Your task to perform on an android device: Open Youtube and go to the subscriptions tab Image 0: 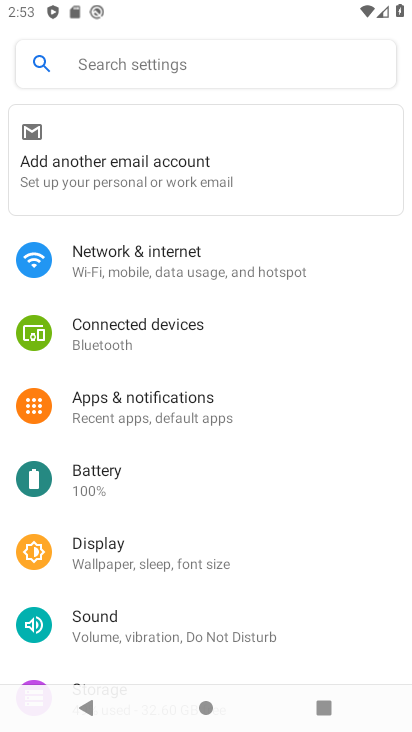
Step 0: press home button
Your task to perform on an android device: Open Youtube and go to the subscriptions tab Image 1: 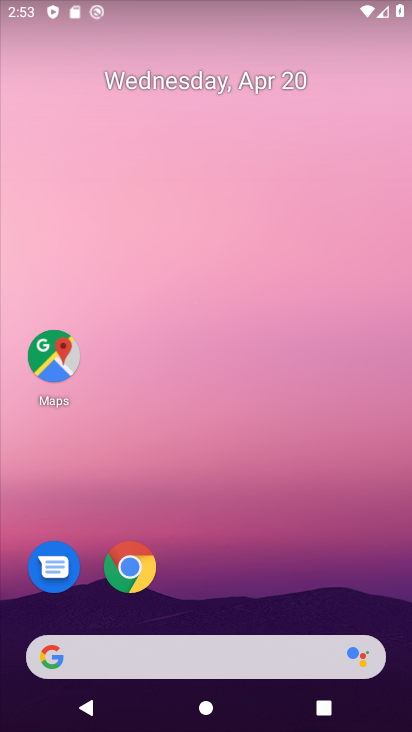
Step 1: drag from (380, 627) to (312, 358)
Your task to perform on an android device: Open Youtube and go to the subscriptions tab Image 2: 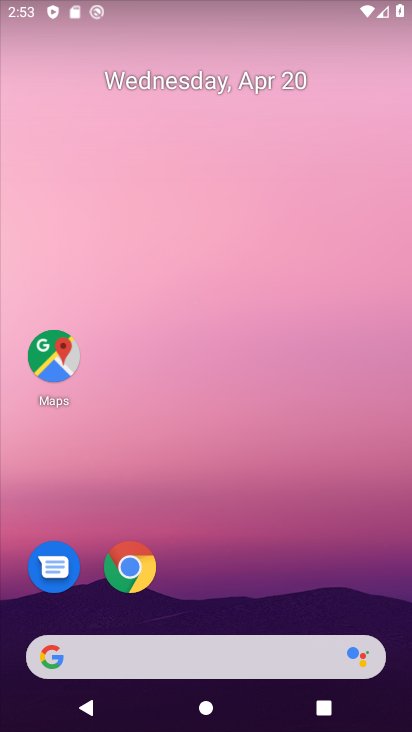
Step 2: drag from (271, 607) to (248, 111)
Your task to perform on an android device: Open Youtube and go to the subscriptions tab Image 3: 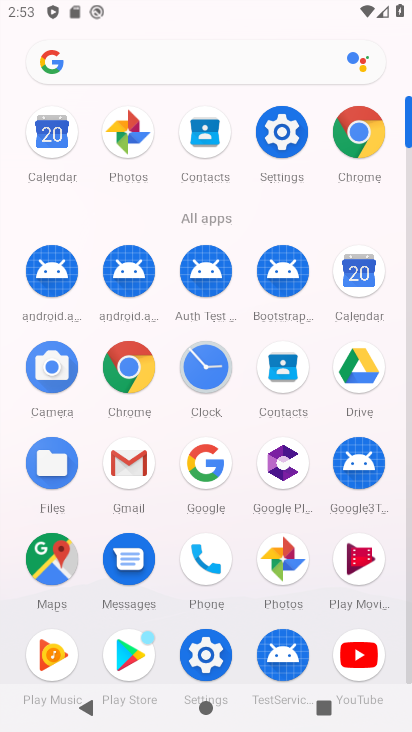
Step 3: click (363, 636)
Your task to perform on an android device: Open Youtube and go to the subscriptions tab Image 4: 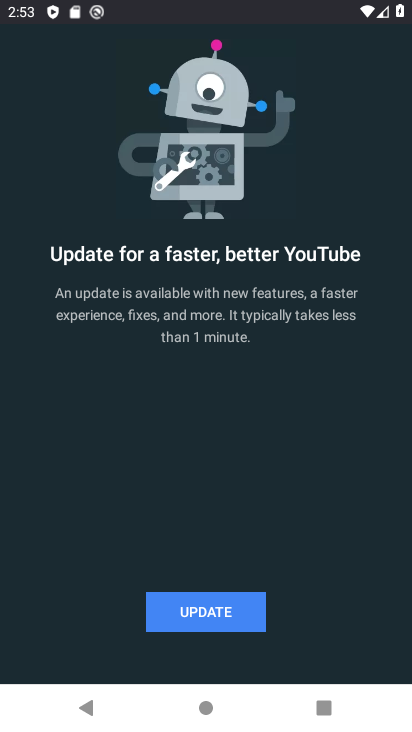
Step 4: click (236, 620)
Your task to perform on an android device: Open Youtube and go to the subscriptions tab Image 5: 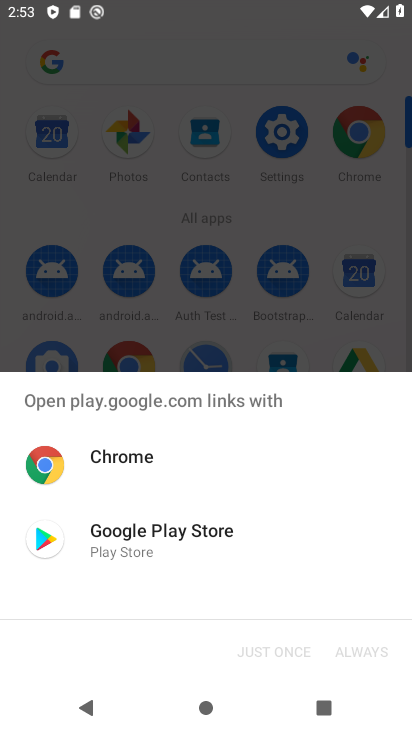
Step 5: click (202, 547)
Your task to perform on an android device: Open Youtube and go to the subscriptions tab Image 6: 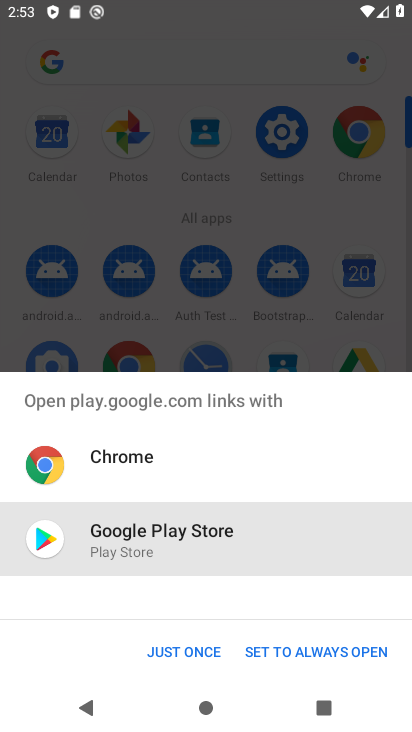
Step 6: click (201, 654)
Your task to perform on an android device: Open Youtube and go to the subscriptions tab Image 7: 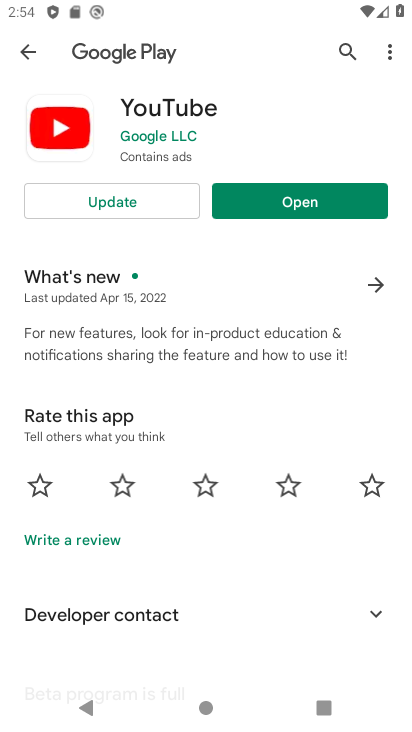
Step 7: click (92, 206)
Your task to perform on an android device: Open Youtube and go to the subscriptions tab Image 8: 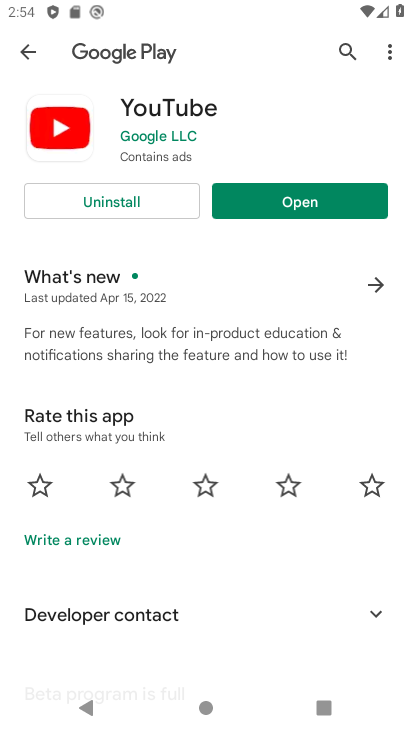
Step 8: click (252, 201)
Your task to perform on an android device: Open Youtube and go to the subscriptions tab Image 9: 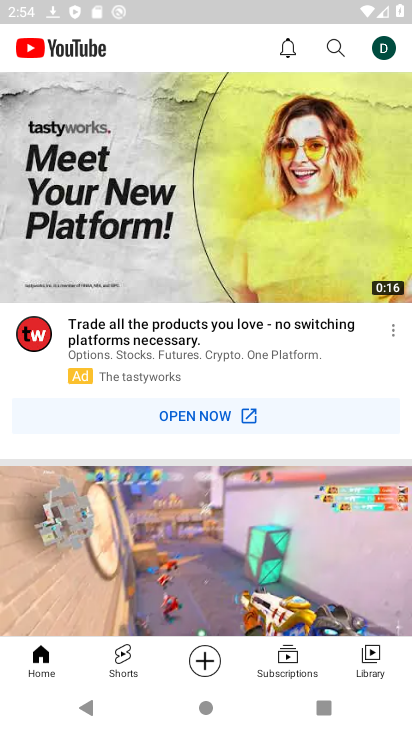
Step 9: click (292, 648)
Your task to perform on an android device: Open Youtube and go to the subscriptions tab Image 10: 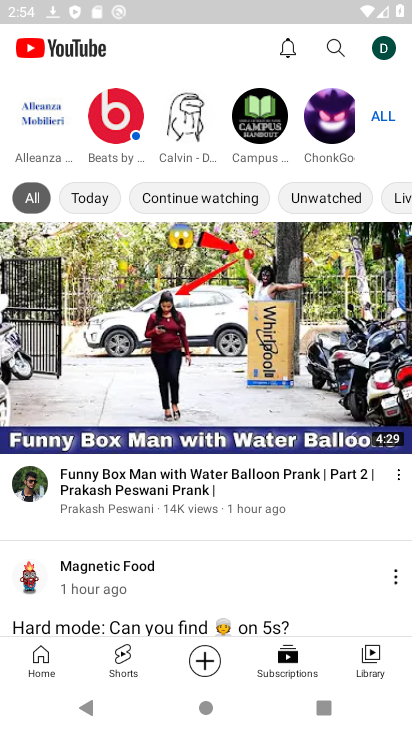
Step 10: task complete